Your task to perform on an android device: check the backup settings in the google photos Image 0: 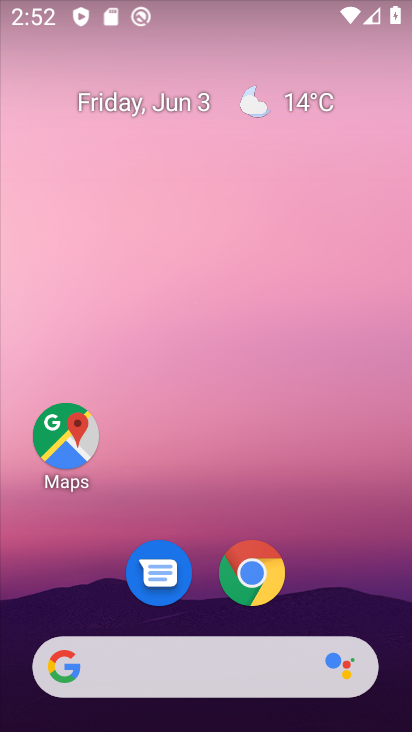
Step 0: drag from (202, 612) to (252, 123)
Your task to perform on an android device: check the backup settings in the google photos Image 1: 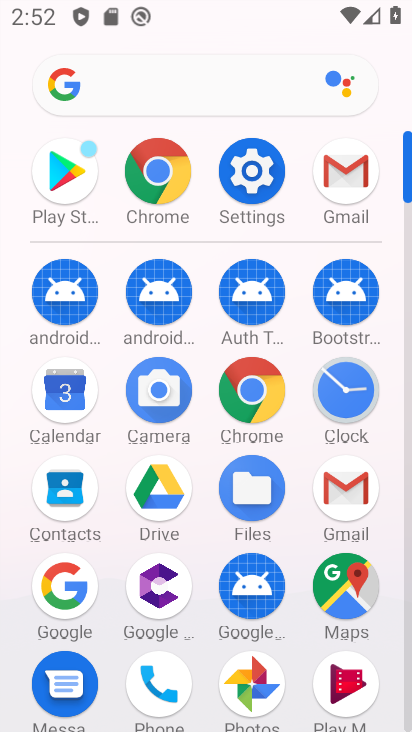
Step 1: click (284, 695)
Your task to perform on an android device: check the backup settings in the google photos Image 2: 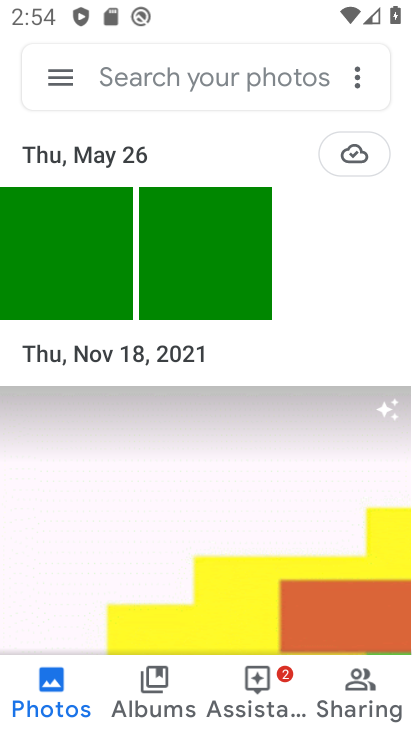
Step 2: press home button
Your task to perform on an android device: check the backup settings in the google photos Image 3: 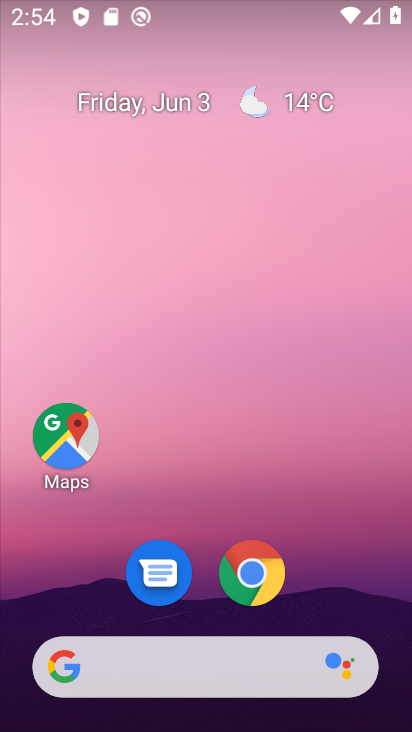
Step 3: drag from (270, 670) to (282, 379)
Your task to perform on an android device: check the backup settings in the google photos Image 4: 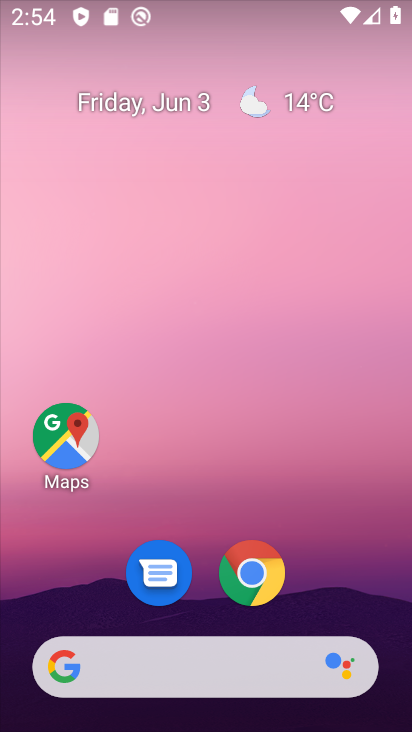
Step 4: drag from (260, 484) to (240, 95)
Your task to perform on an android device: check the backup settings in the google photos Image 5: 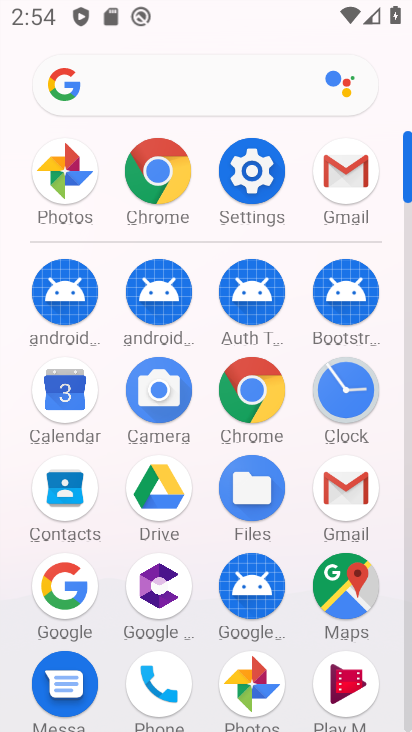
Step 5: click (73, 184)
Your task to perform on an android device: check the backup settings in the google photos Image 6: 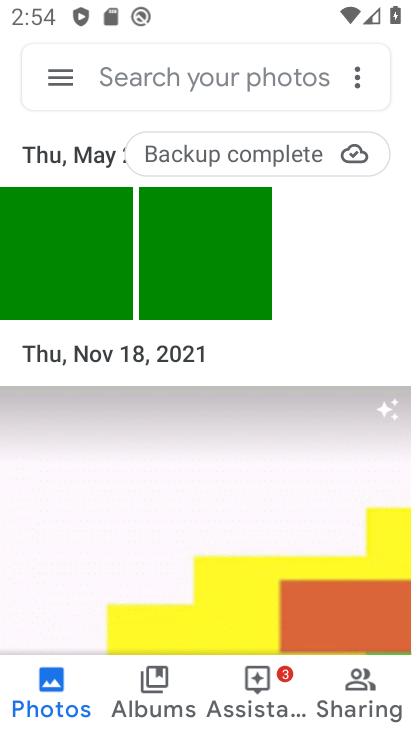
Step 6: click (64, 76)
Your task to perform on an android device: check the backup settings in the google photos Image 7: 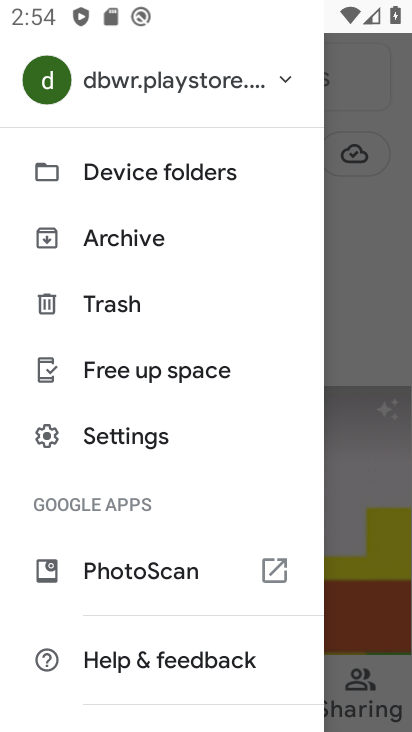
Step 7: drag from (195, 503) to (253, 161)
Your task to perform on an android device: check the backup settings in the google photos Image 8: 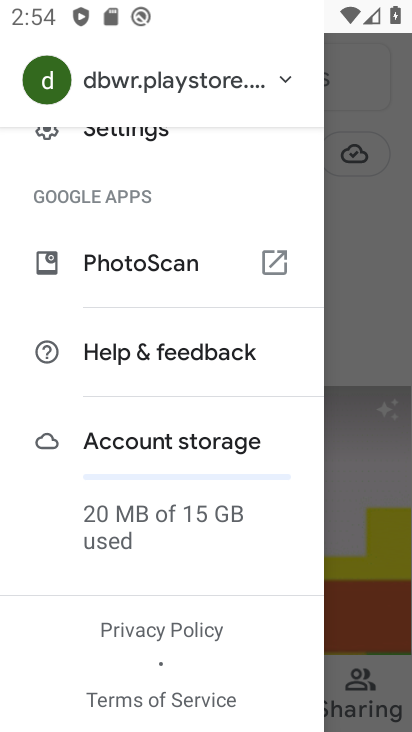
Step 8: click (359, 256)
Your task to perform on an android device: check the backup settings in the google photos Image 9: 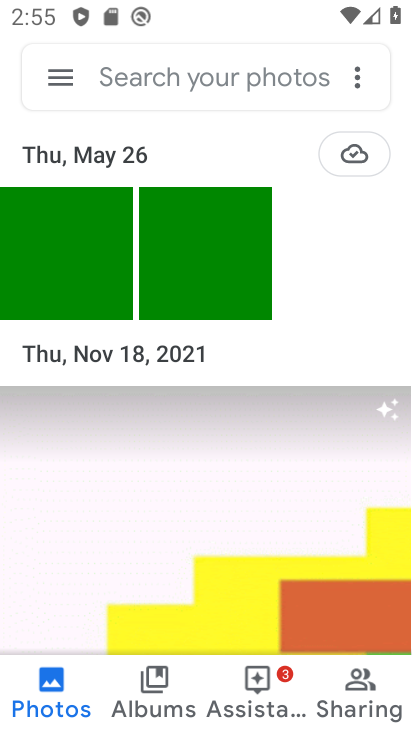
Step 9: click (359, 82)
Your task to perform on an android device: check the backup settings in the google photos Image 10: 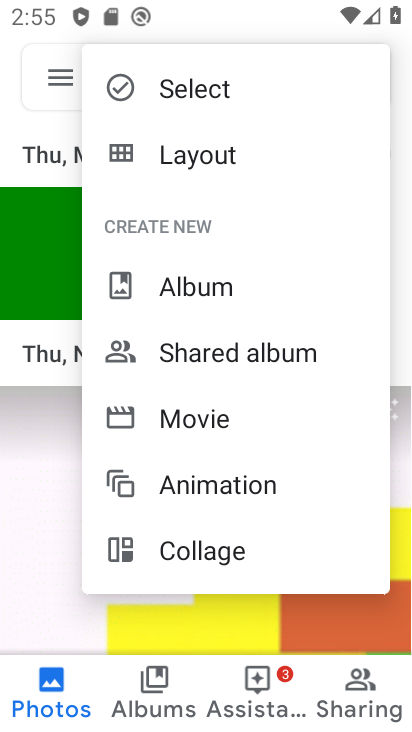
Step 10: click (52, 246)
Your task to perform on an android device: check the backup settings in the google photos Image 11: 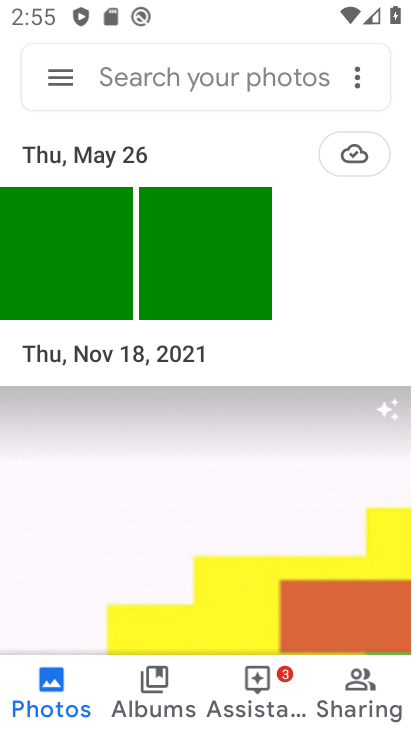
Step 11: click (69, 90)
Your task to perform on an android device: check the backup settings in the google photos Image 12: 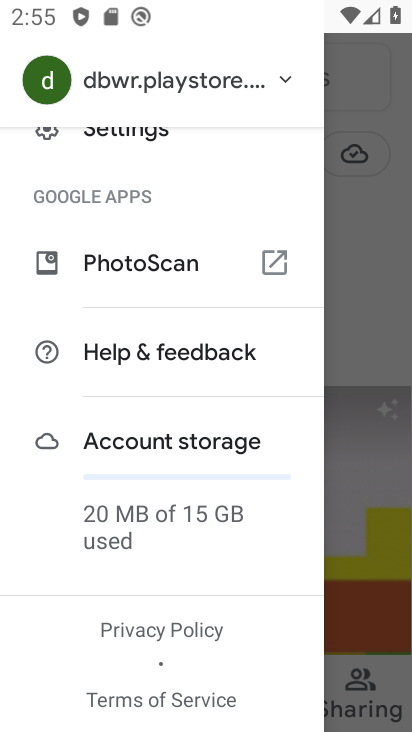
Step 12: drag from (187, 468) to (186, 179)
Your task to perform on an android device: check the backup settings in the google photos Image 13: 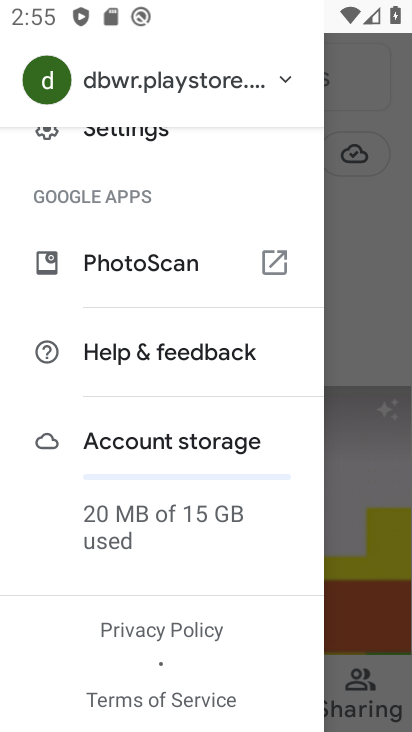
Step 13: drag from (167, 187) to (193, 448)
Your task to perform on an android device: check the backup settings in the google photos Image 14: 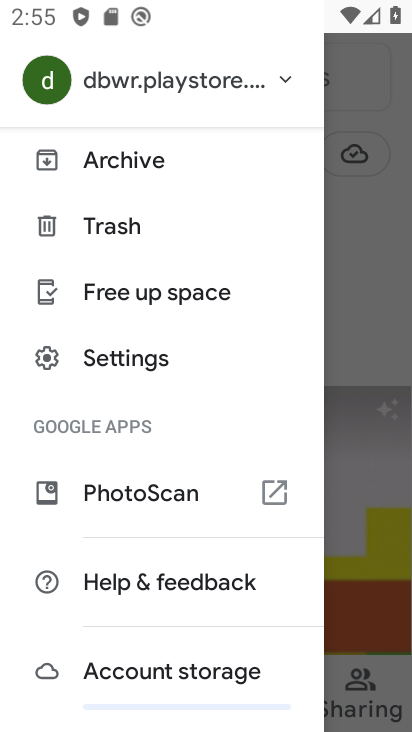
Step 14: click (127, 362)
Your task to perform on an android device: check the backup settings in the google photos Image 15: 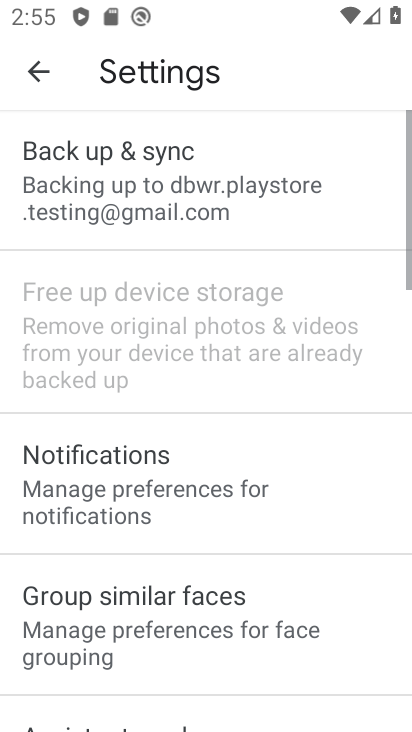
Step 15: drag from (160, 438) to (255, 86)
Your task to perform on an android device: check the backup settings in the google photos Image 16: 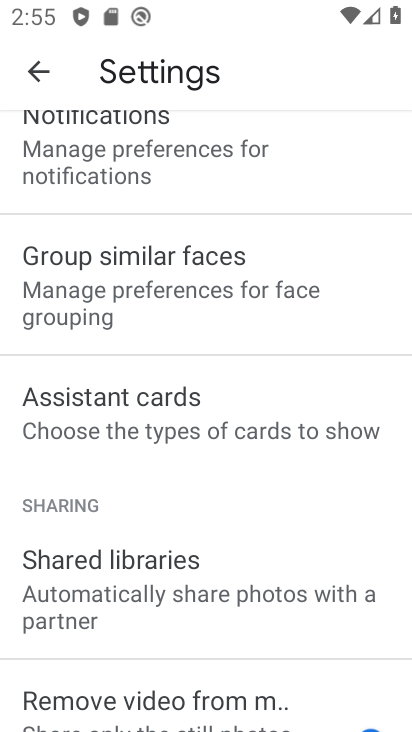
Step 16: drag from (232, 131) to (215, 468)
Your task to perform on an android device: check the backup settings in the google photos Image 17: 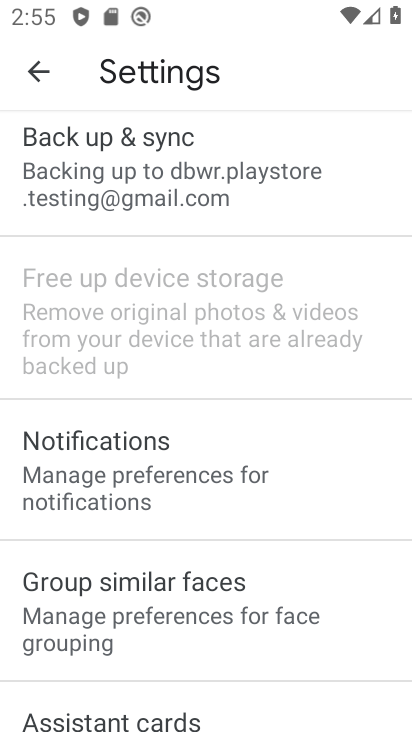
Step 17: click (192, 186)
Your task to perform on an android device: check the backup settings in the google photos Image 18: 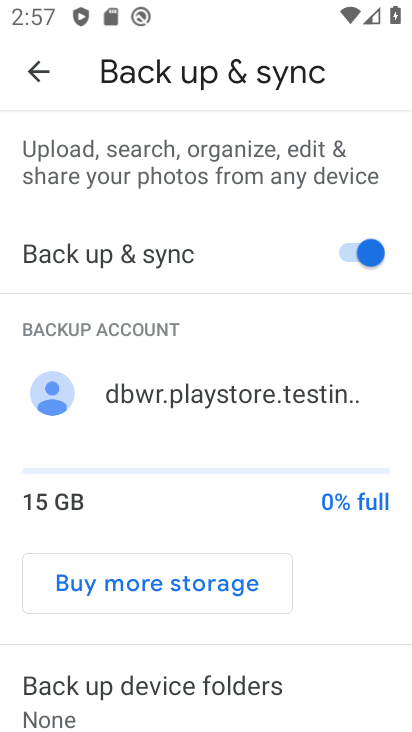
Step 18: task complete